Your task to perform on an android device: Search for pizza restaurants on Maps Image 0: 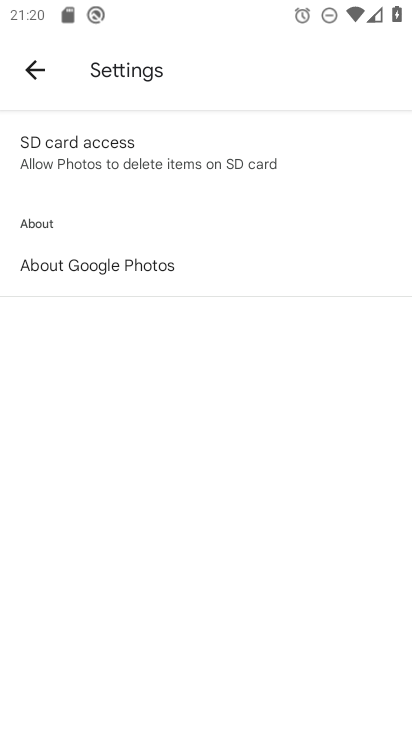
Step 0: press home button
Your task to perform on an android device: Search for pizza restaurants on Maps Image 1: 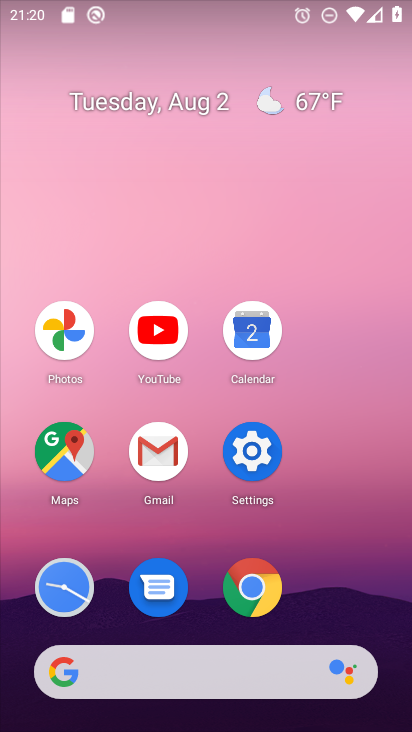
Step 1: click (68, 461)
Your task to perform on an android device: Search for pizza restaurants on Maps Image 2: 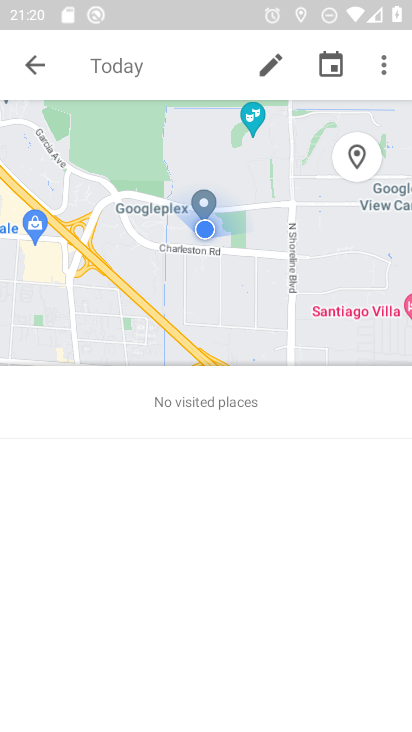
Step 2: click (31, 53)
Your task to perform on an android device: Search for pizza restaurants on Maps Image 3: 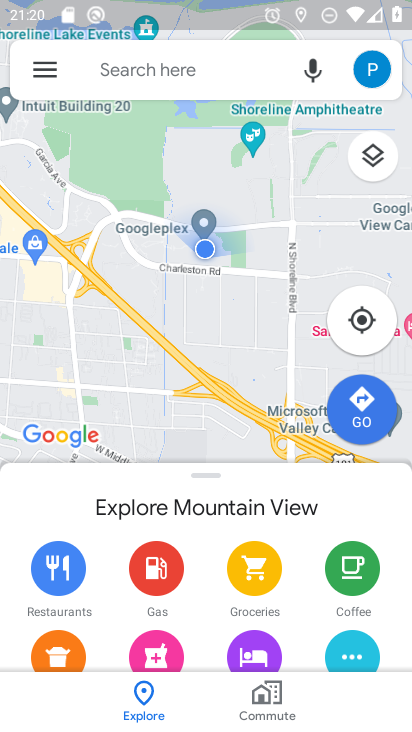
Step 3: click (148, 67)
Your task to perform on an android device: Search for pizza restaurants on Maps Image 4: 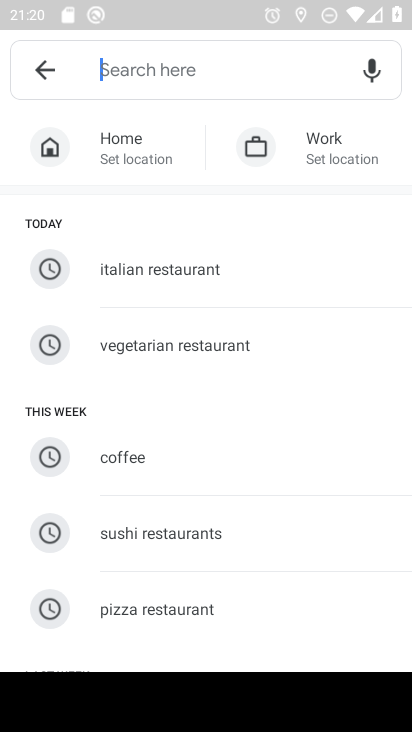
Step 4: click (176, 603)
Your task to perform on an android device: Search for pizza restaurants on Maps Image 5: 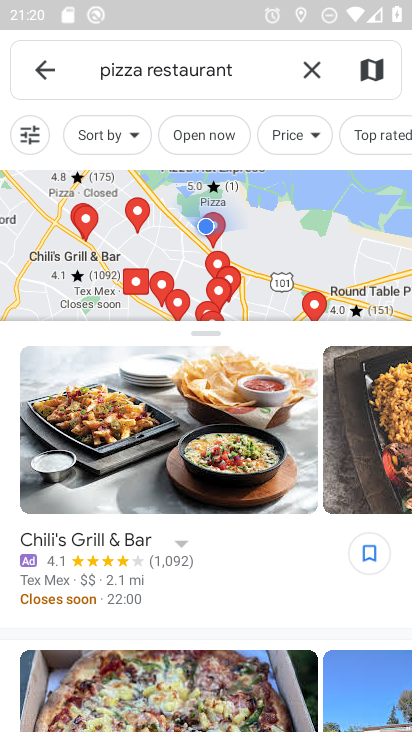
Step 5: task complete